Your task to perform on an android device: Search for "lg ultragear" on amazon, select the first entry, and add it to the cart. Image 0: 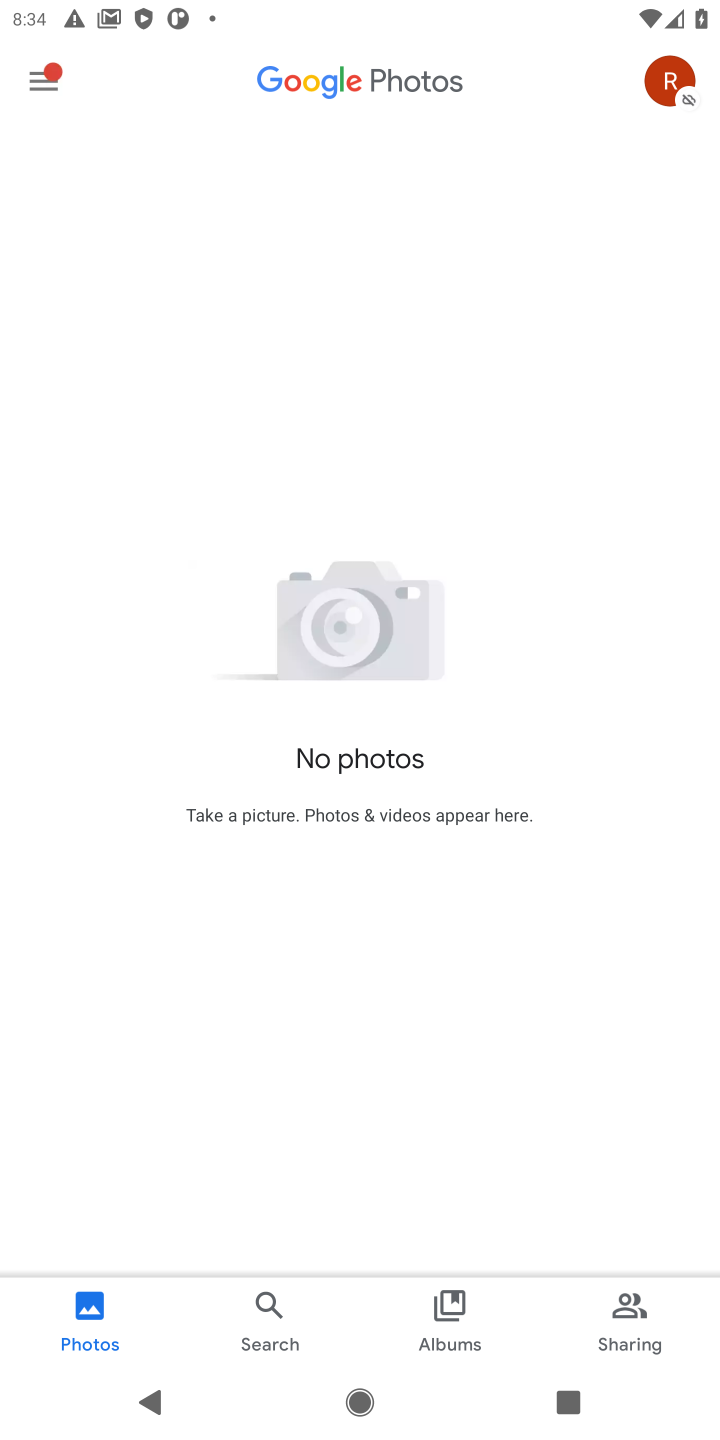
Step 0: press home button
Your task to perform on an android device: Search for "lg ultragear" on amazon, select the first entry, and add it to the cart. Image 1: 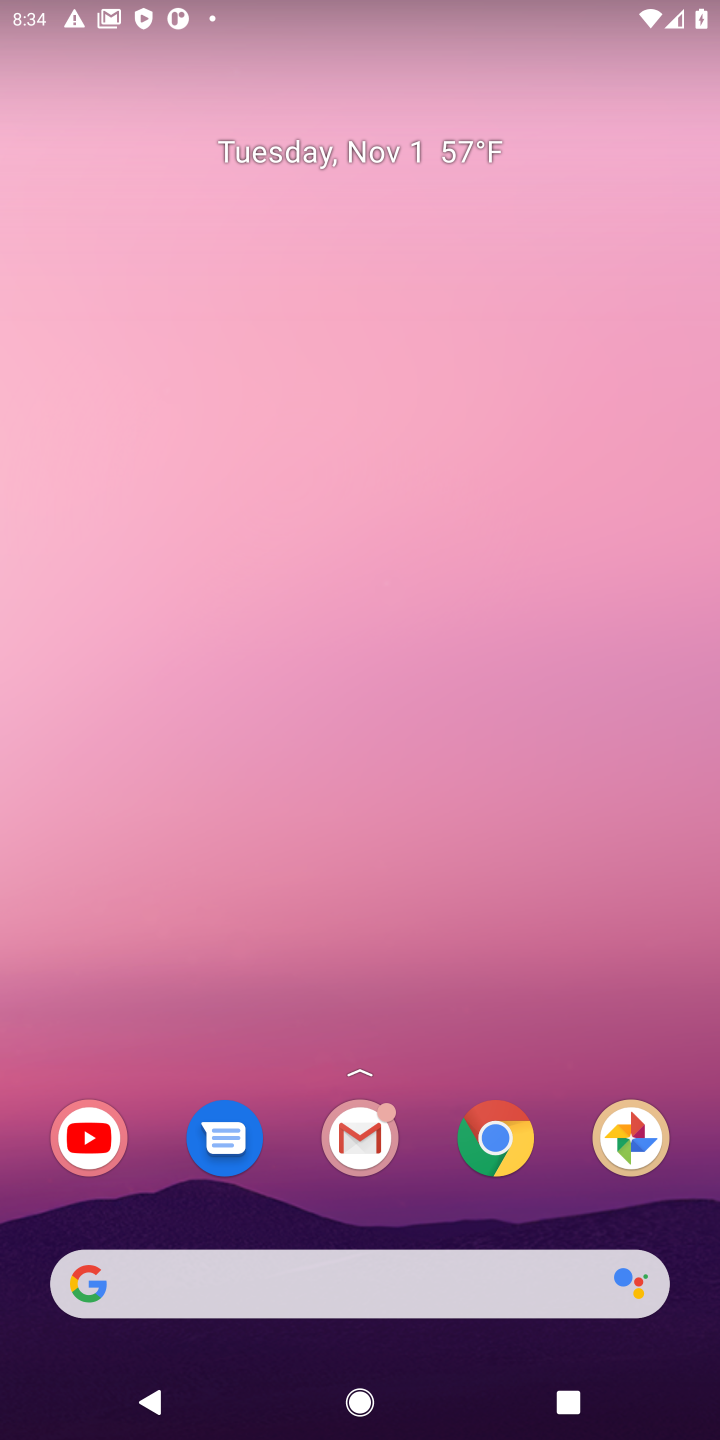
Step 1: click (489, 1137)
Your task to perform on an android device: Search for "lg ultragear" on amazon, select the first entry, and add it to the cart. Image 2: 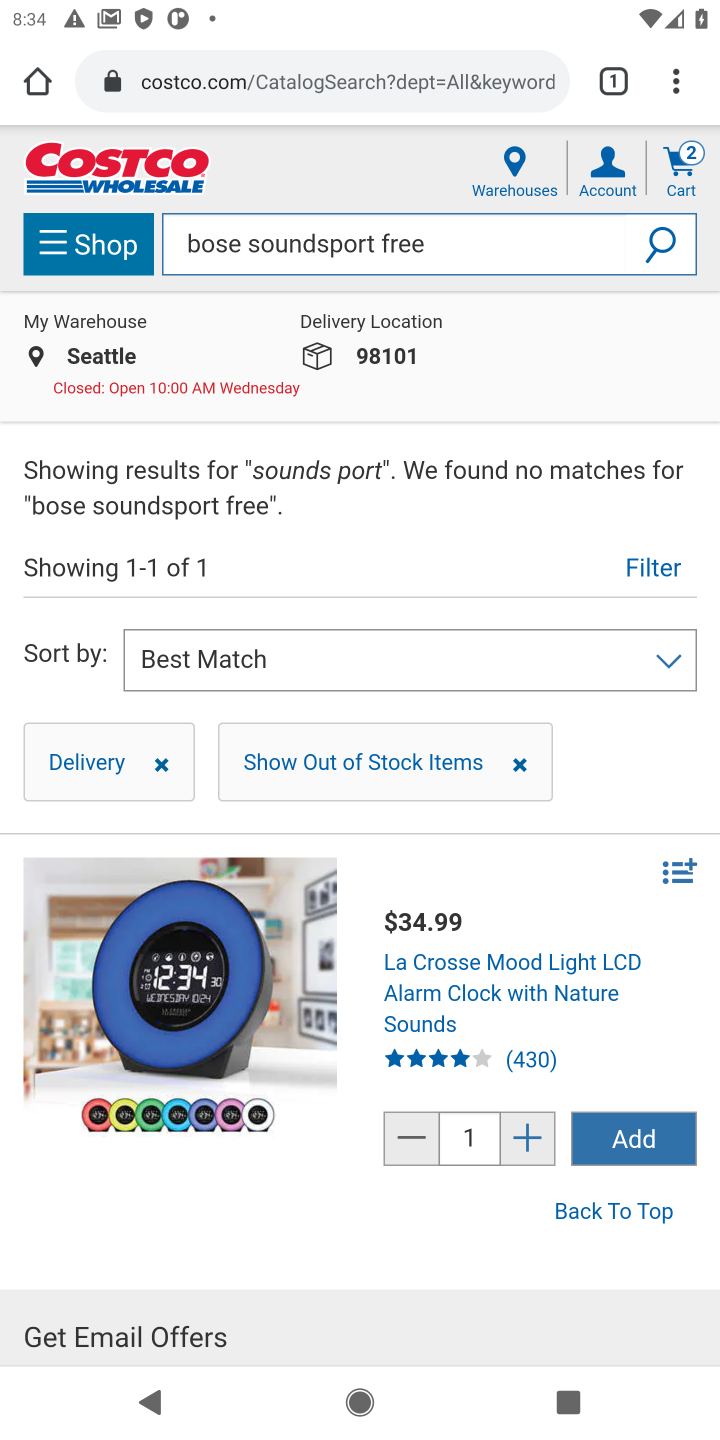
Step 2: click (315, 87)
Your task to perform on an android device: Search for "lg ultragear" on amazon, select the first entry, and add it to the cart. Image 3: 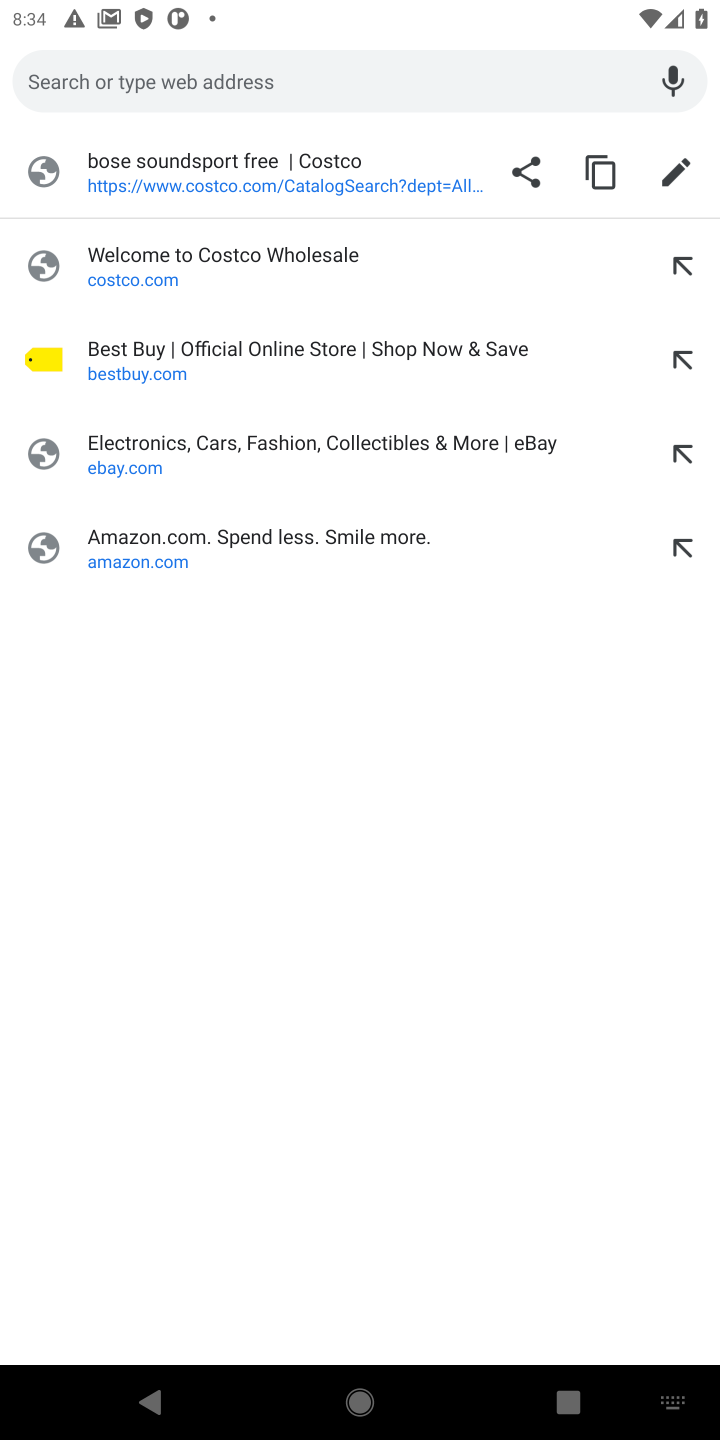
Step 3: click (132, 560)
Your task to perform on an android device: Search for "lg ultragear" on amazon, select the first entry, and add it to the cart. Image 4: 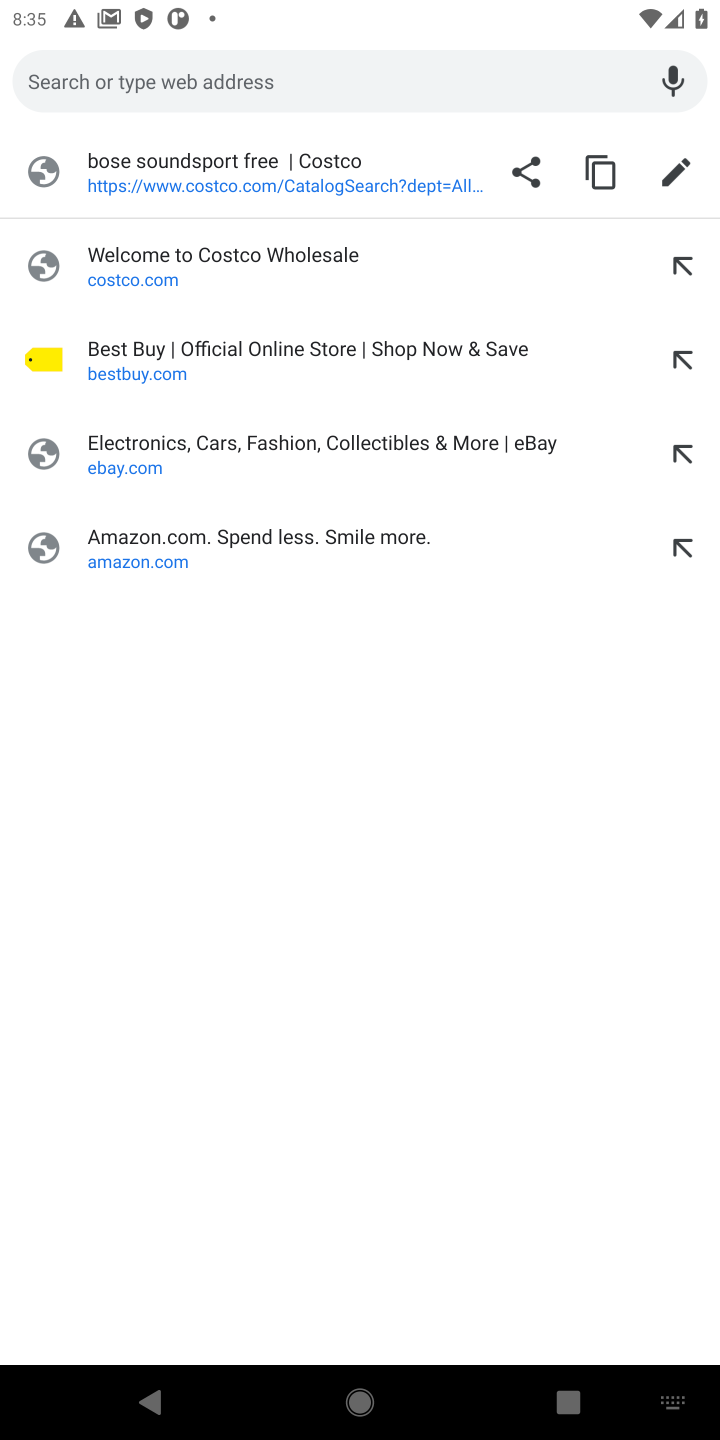
Step 4: click (131, 550)
Your task to perform on an android device: Search for "lg ultragear" on amazon, select the first entry, and add it to the cart. Image 5: 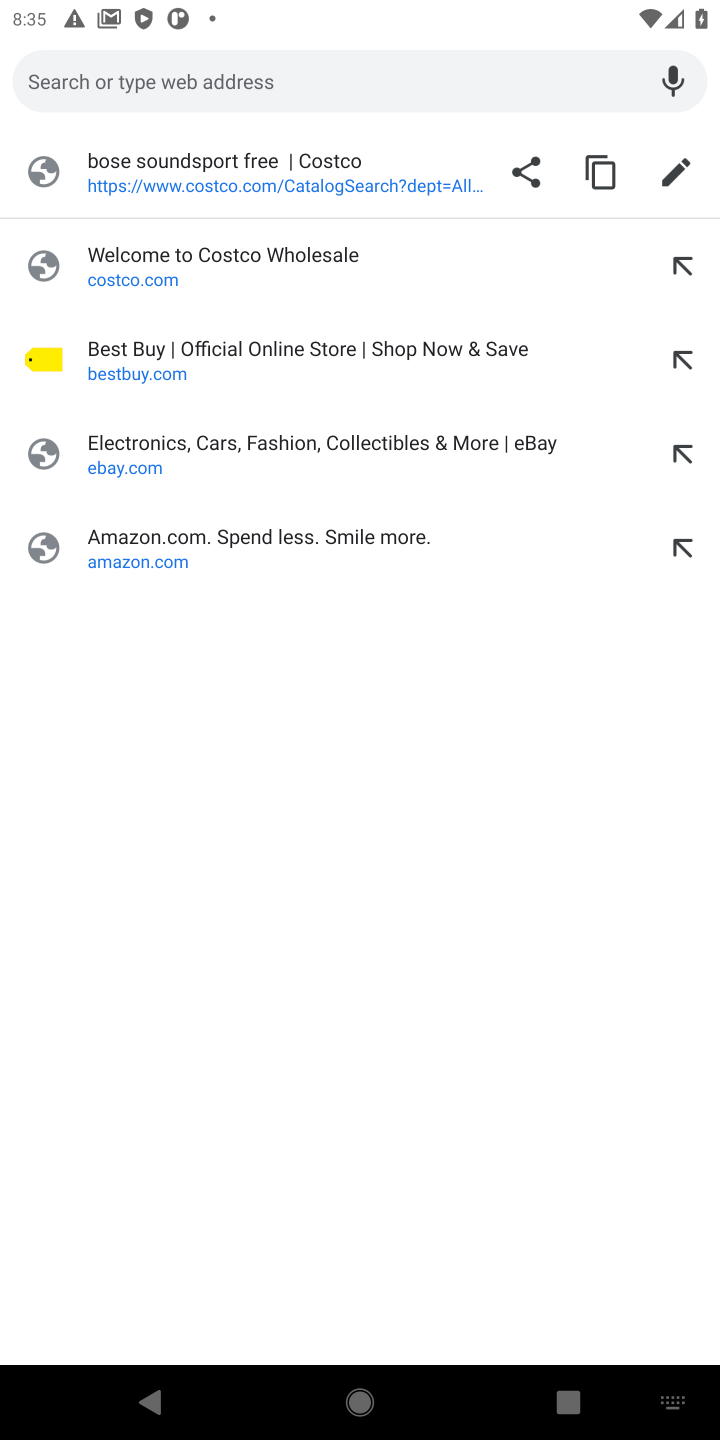
Step 5: click (94, 569)
Your task to perform on an android device: Search for "lg ultragear" on amazon, select the first entry, and add it to the cart. Image 6: 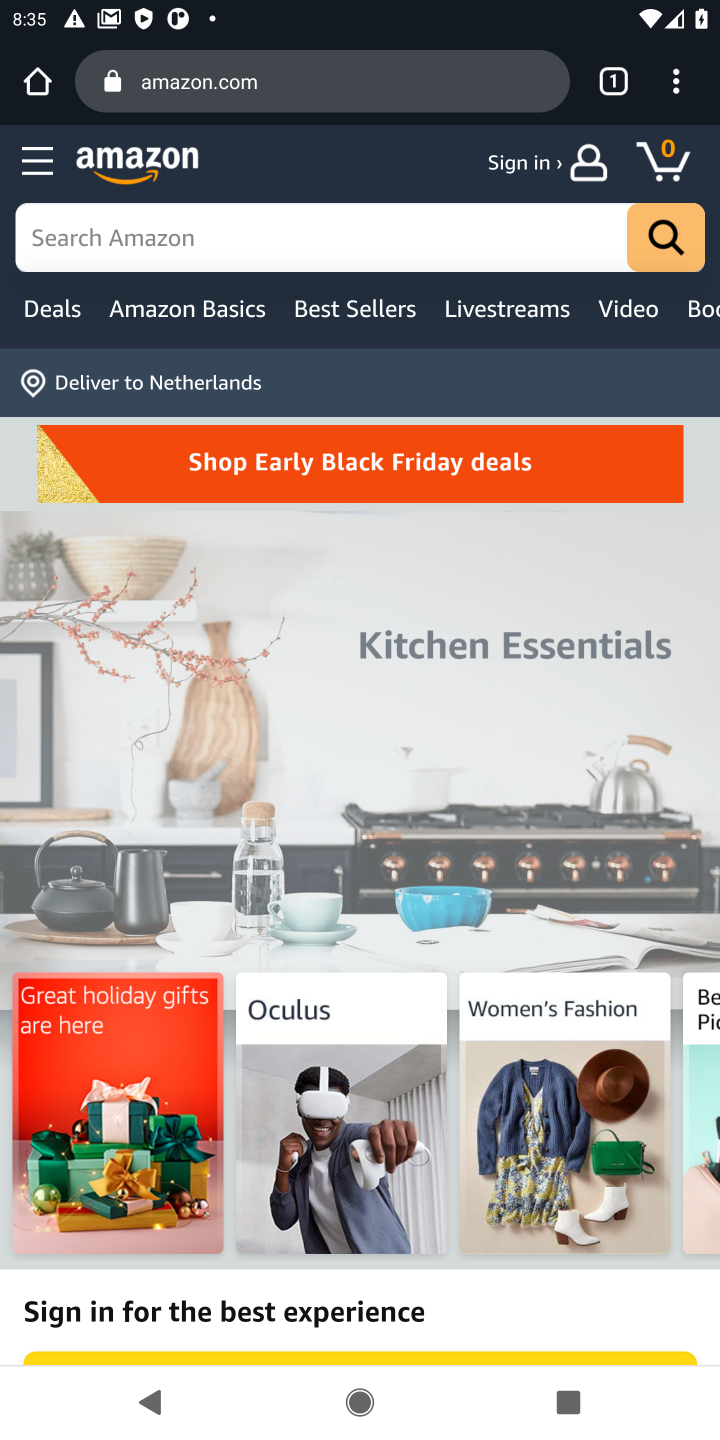
Step 6: click (334, 249)
Your task to perform on an android device: Search for "lg ultragear" on amazon, select the first entry, and add it to the cart. Image 7: 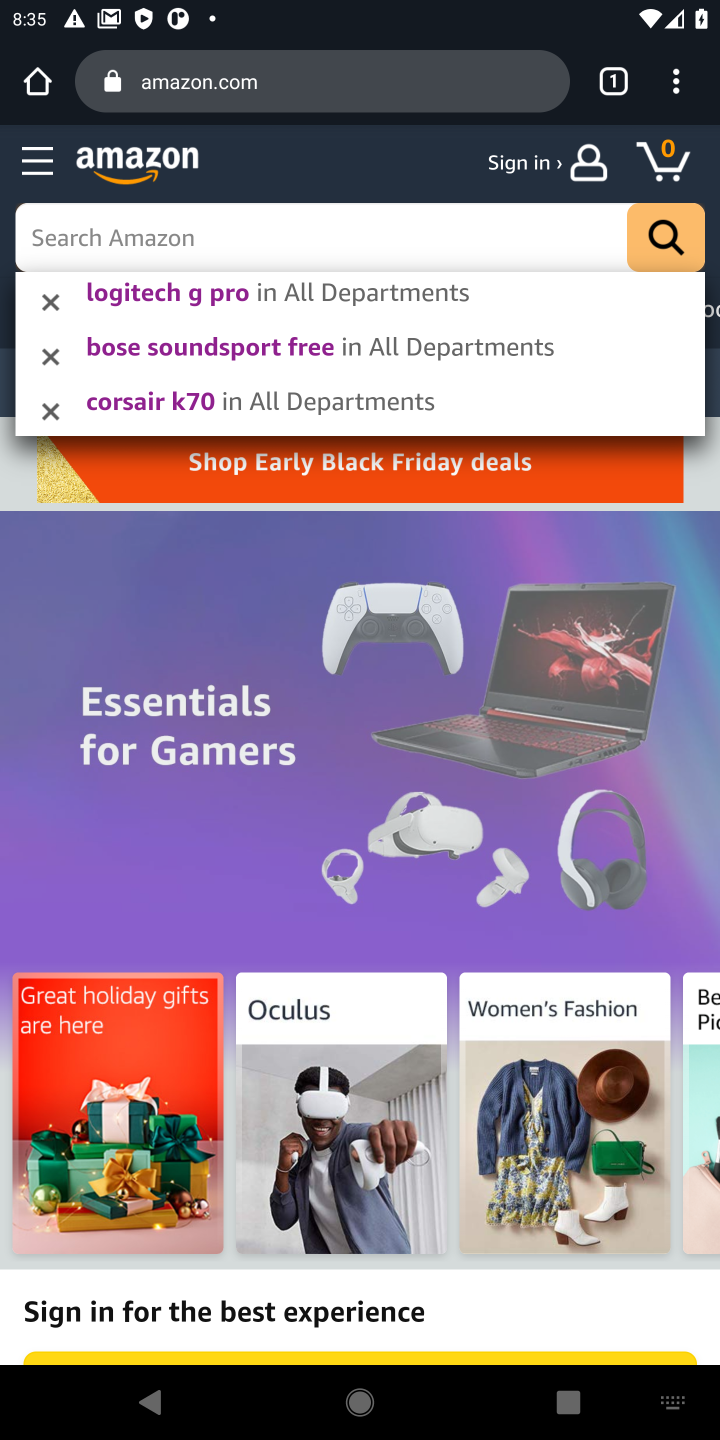
Step 7: type "lg ultragear"
Your task to perform on an android device: Search for "lg ultragear" on amazon, select the first entry, and add it to the cart. Image 8: 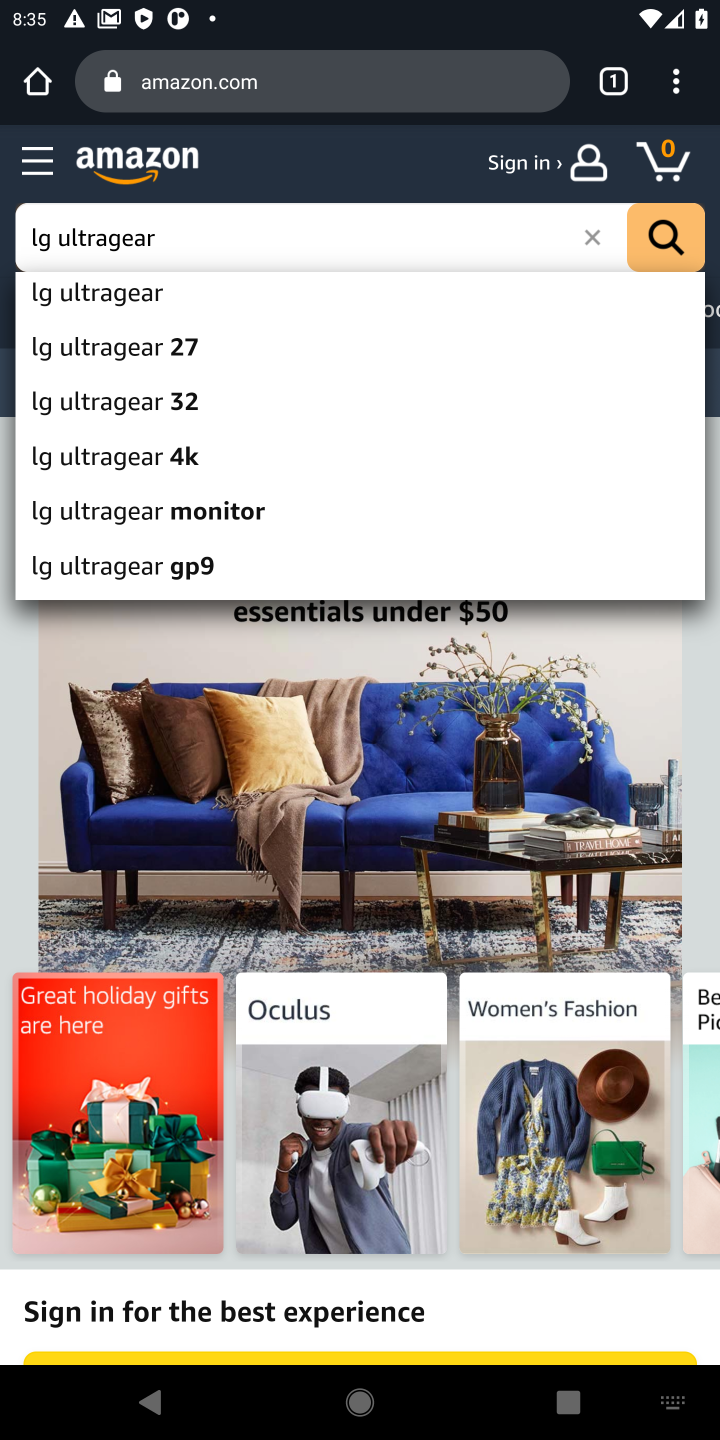
Step 8: click (101, 306)
Your task to perform on an android device: Search for "lg ultragear" on amazon, select the first entry, and add it to the cart. Image 9: 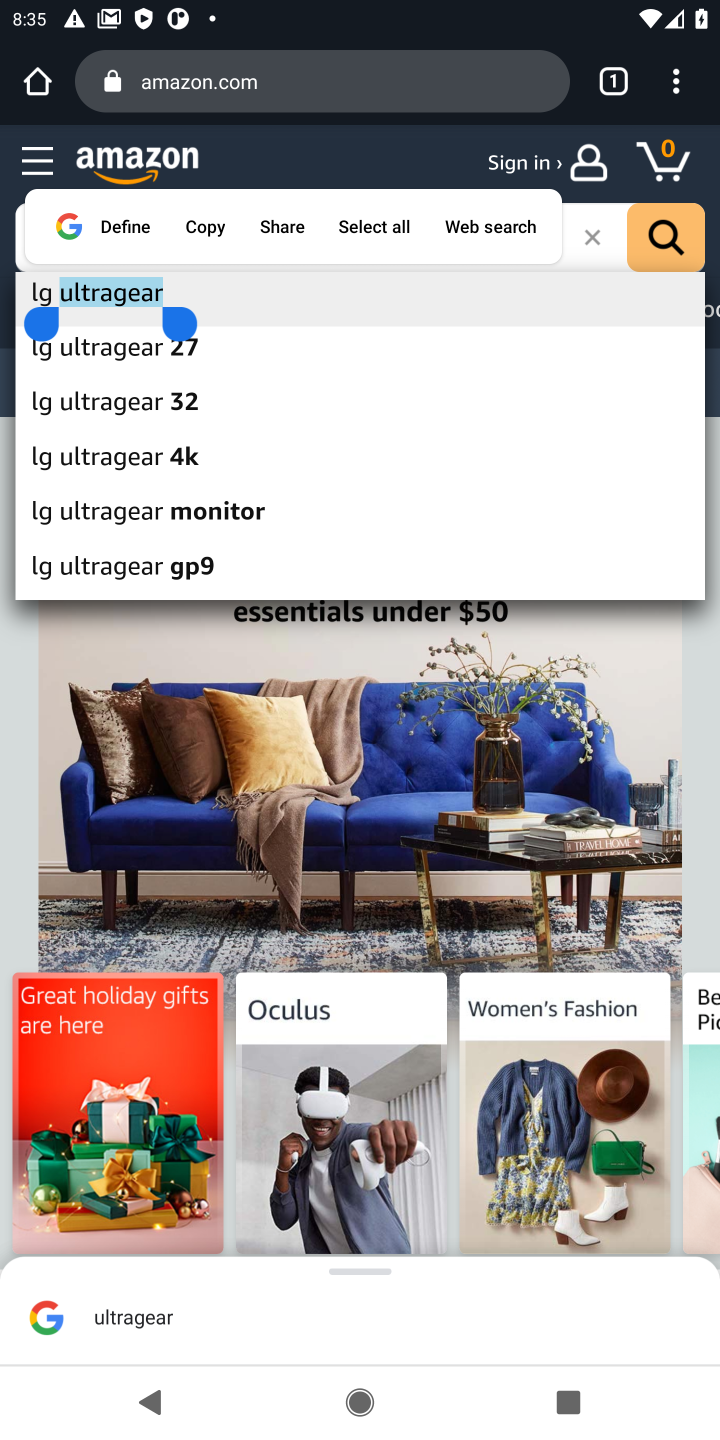
Step 9: click (49, 308)
Your task to perform on an android device: Search for "lg ultragear" on amazon, select the first entry, and add it to the cart. Image 10: 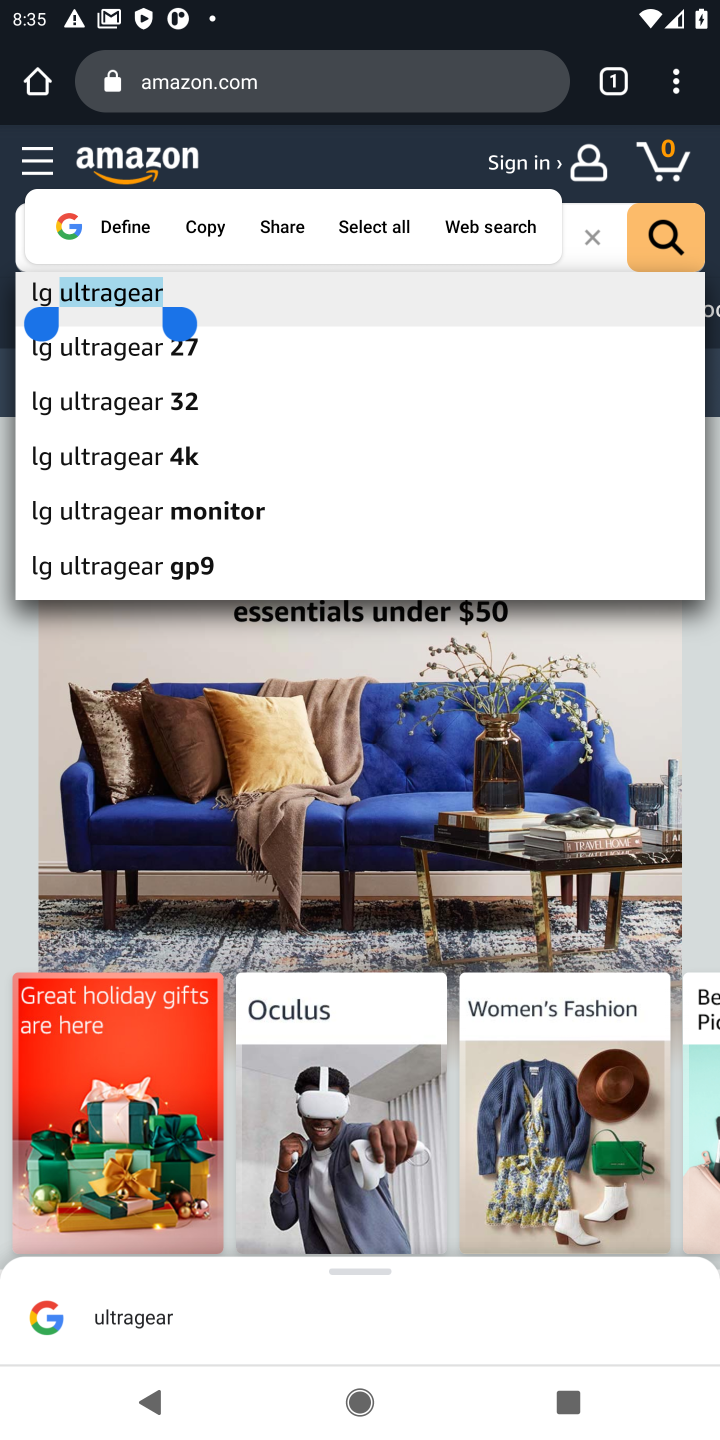
Step 10: click (82, 305)
Your task to perform on an android device: Search for "lg ultragear" on amazon, select the first entry, and add it to the cart. Image 11: 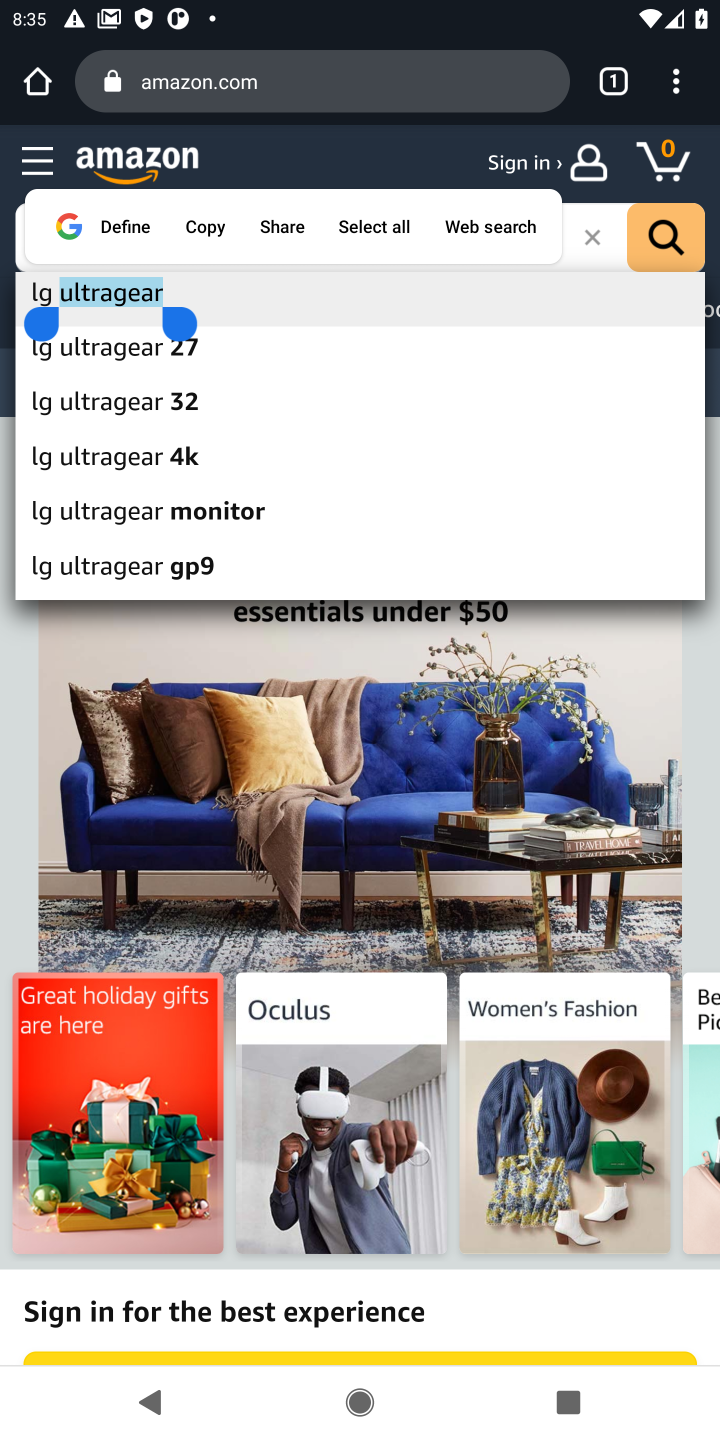
Step 11: click (217, 289)
Your task to perform on an android device: Search for "lg ultragear" on amazon, select the first entry, and add it to the cart. Image 12: 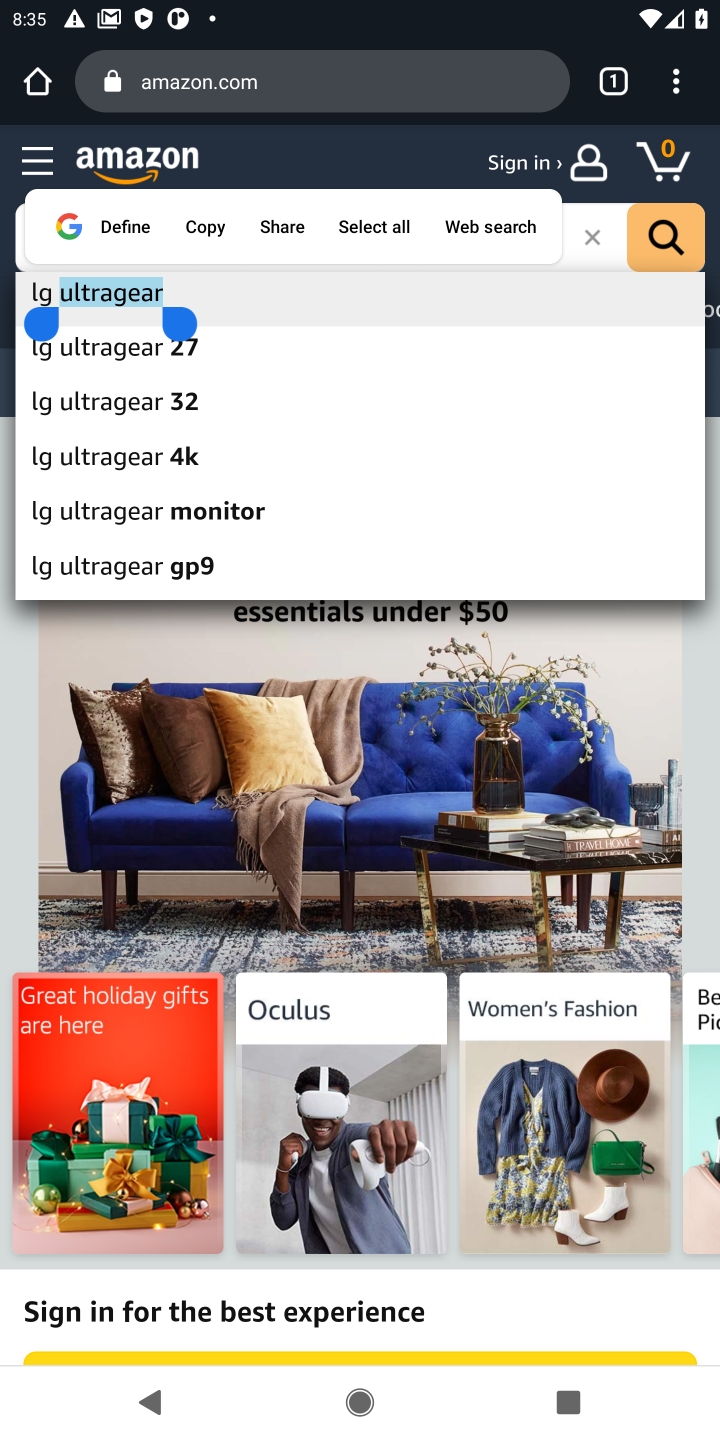
Step 12: click (53, 295)
Your task to perform on an android device: Search for "lg ultragear" on amazon, select the first entry, and add it to the cart. Image 13: 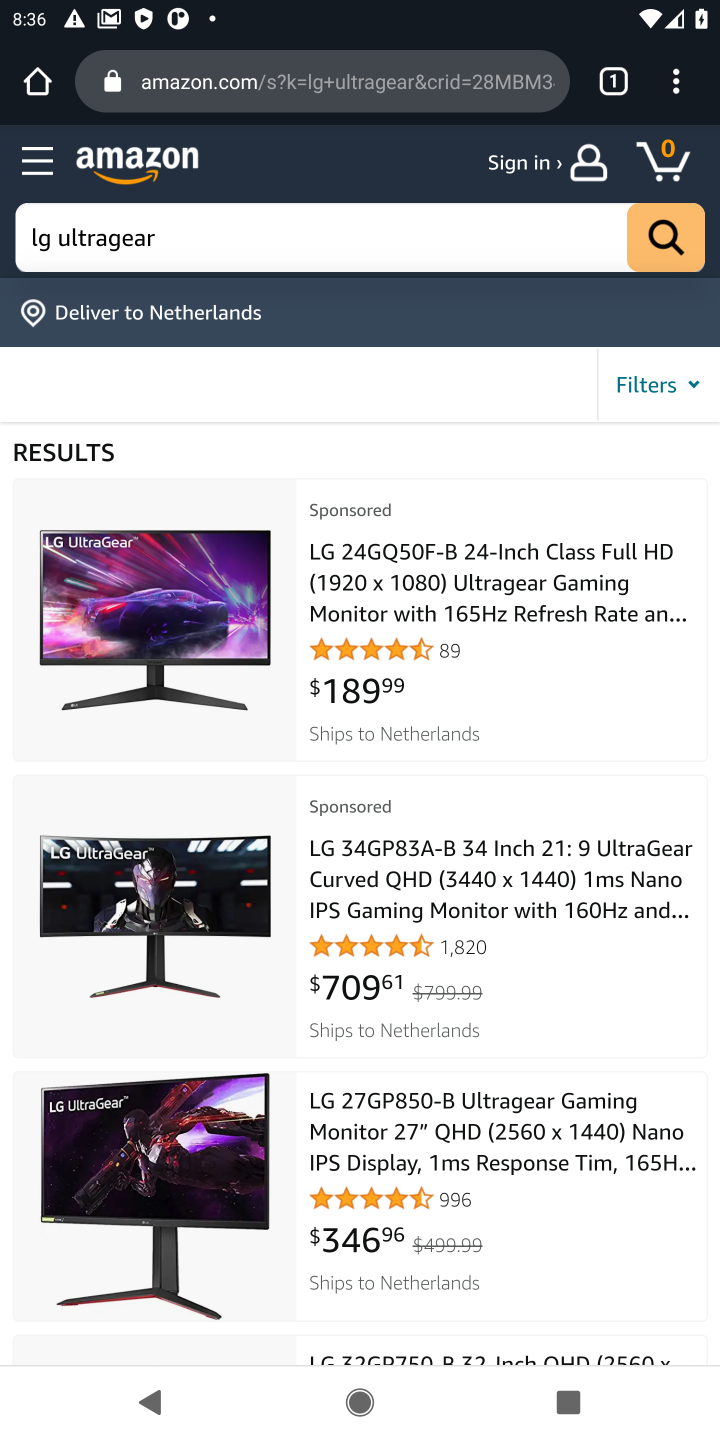
Step 13: click (327, 595)
Your task to perform on an android device: Search for "lg ultragear" on amazon, select the first entry, and add it to the cart. Image 14: 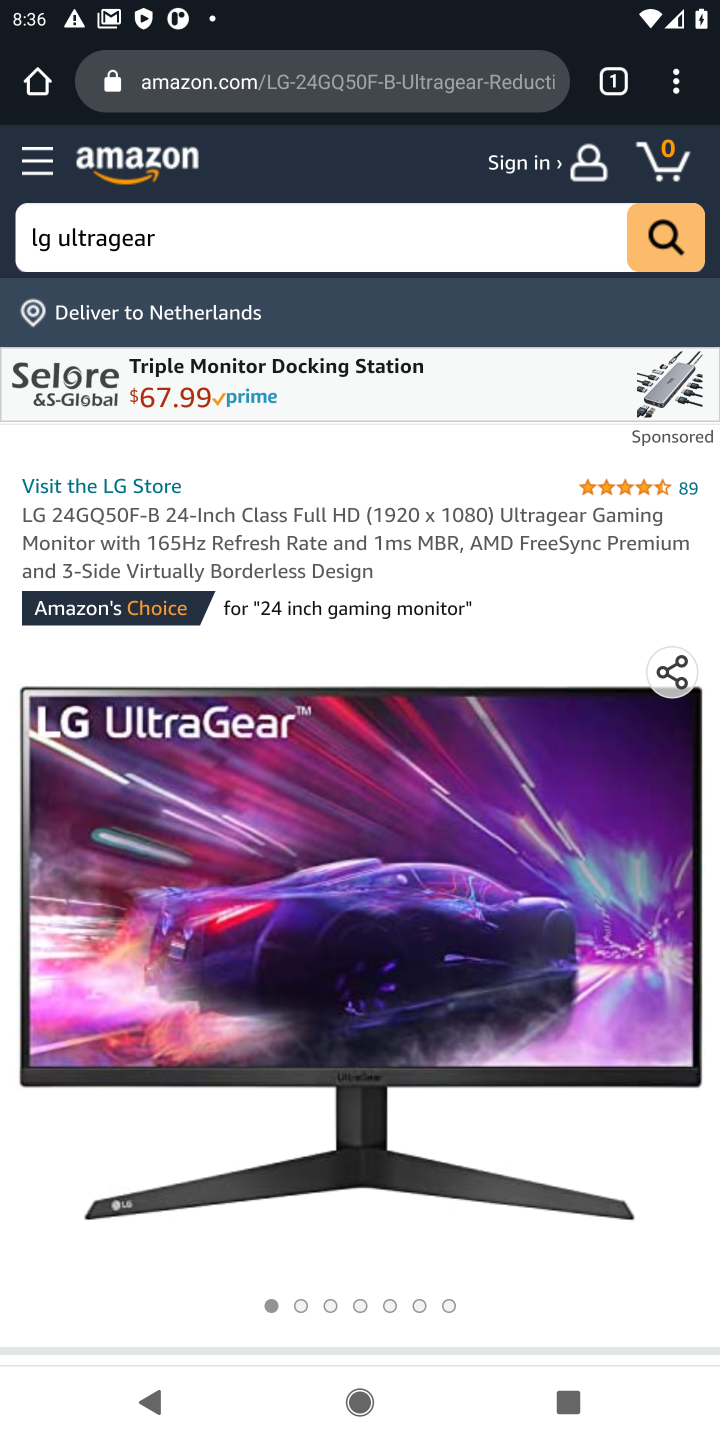
Step 14: drag from (282, 934) to (275, 410)
Your task to perform on an android device: Search for "lg ultragear" on amazon, select the first entry, and add it to the cart. Image 15: 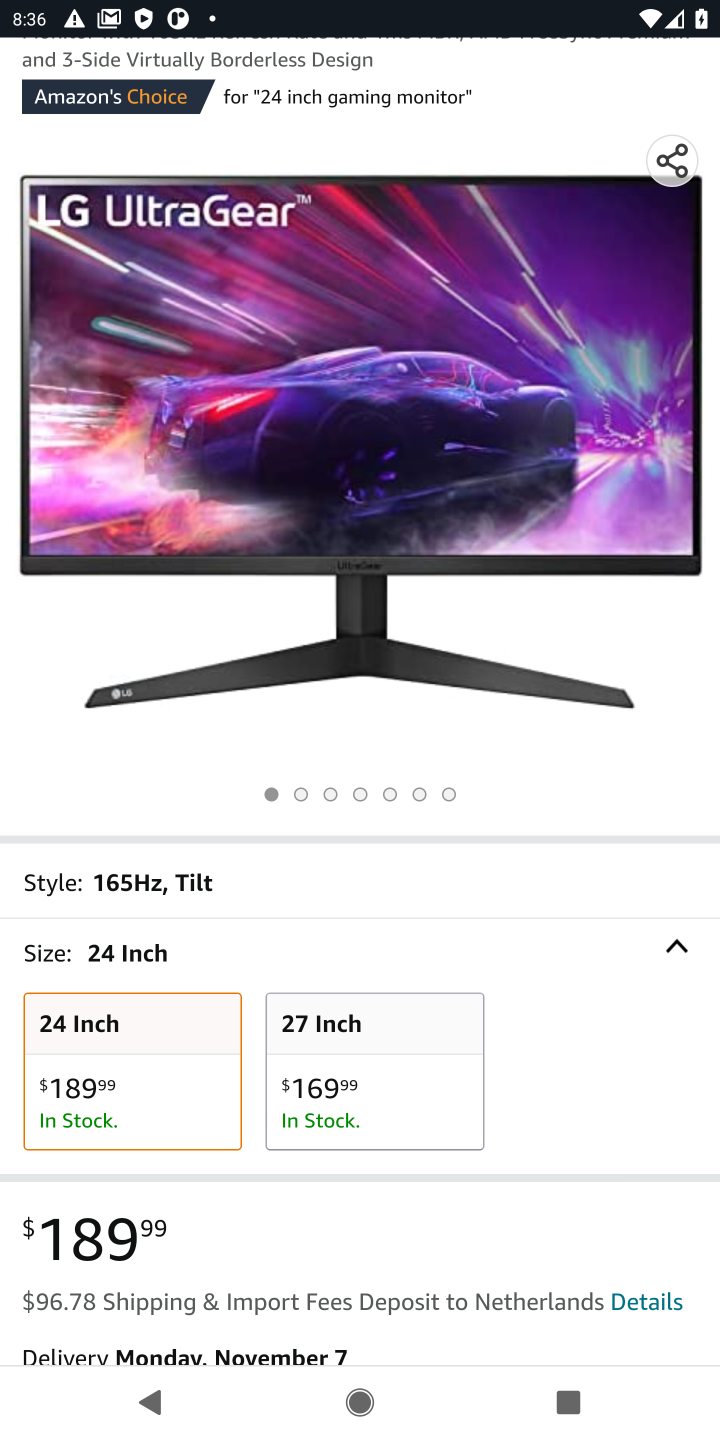
Step 15: drag from (518, 1080) to (535, 532)
Your task to perform on an android device: Search for "lg ultragear" on amazon, select the first entry, and add it to the cart. Image 16: 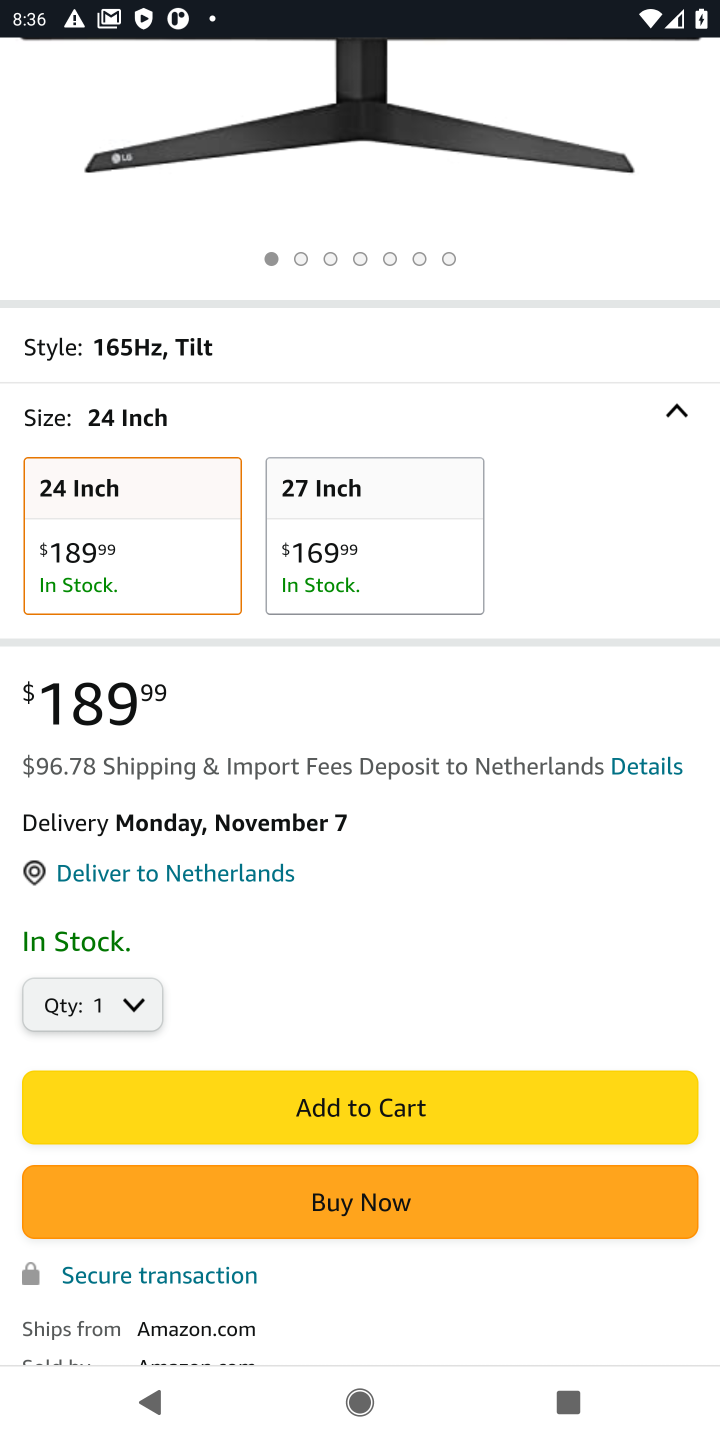
Step 16: click (358, 1115)
Your task to perform on an android device: Search for "lg ultragear" on amazon, select the first entry, and add it to the cart. Image 17: 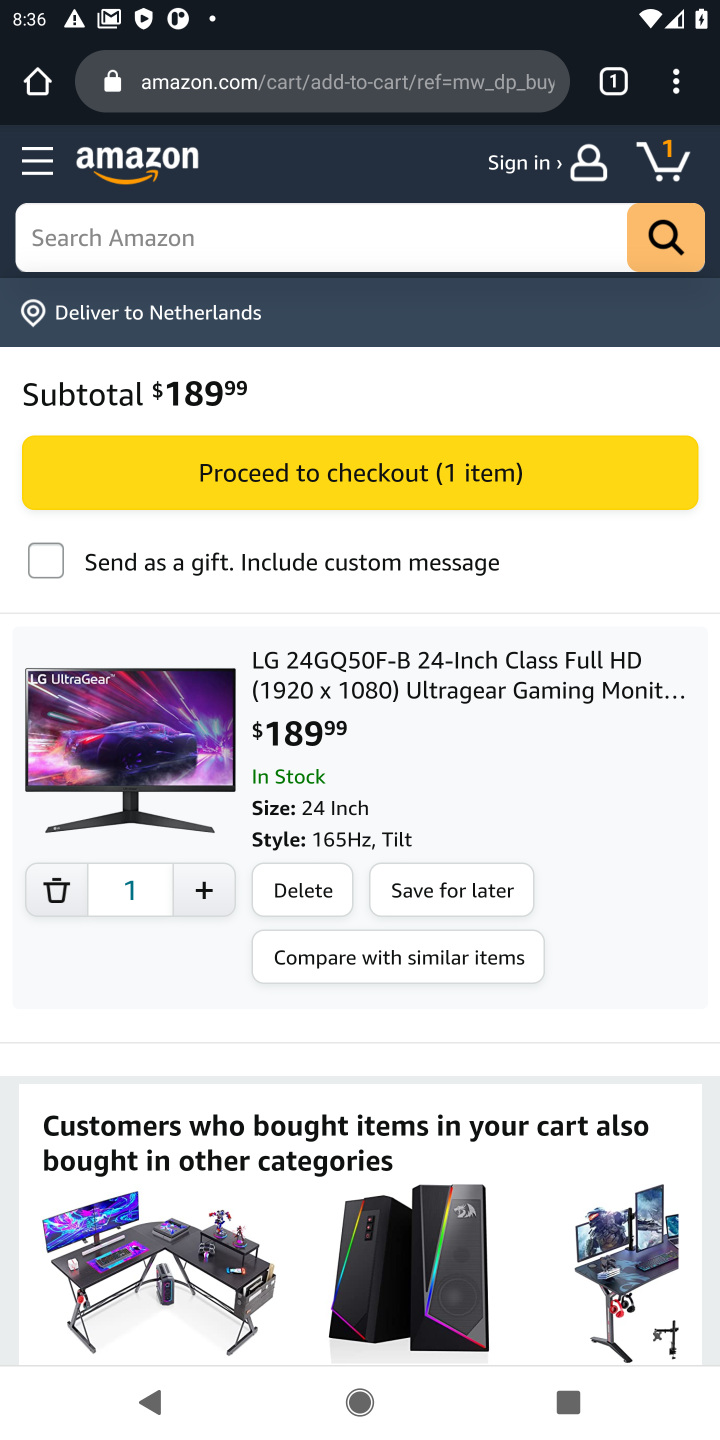
Step 17: task complete